Your task to perform on an android device: open a new tab in the chrome app Image 0: 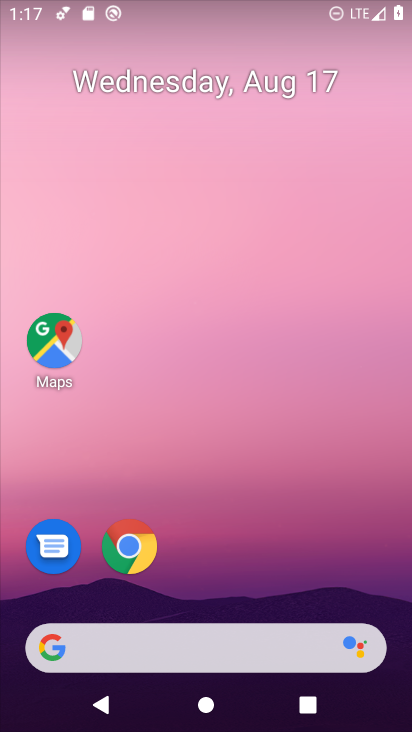
Step 0: click (128, 547)
Your task to perform on an android device: open a new tab in the chrome app Image 1: 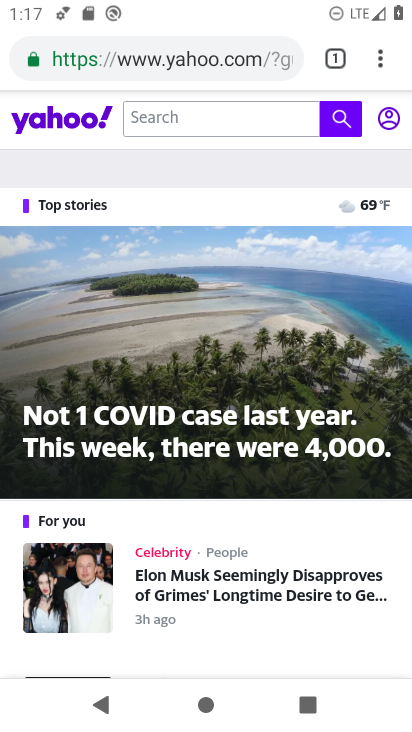
Step 1: click (382, 61)
Your task to perform on an android device: open a new tab in the chrome app Image 2: 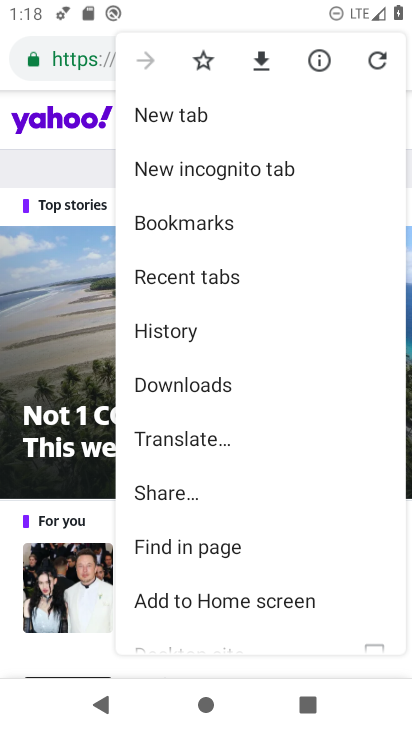
Step 2: click (186, 108)
Your task to perform on an android device: open a new tab in the chrome app Image 3: 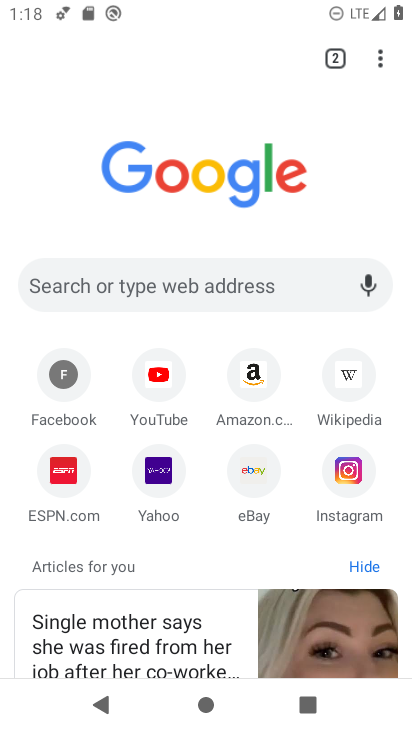
Step 3: task complete